Your task to perform on an android device: turn off picture-in-picture Image 0: 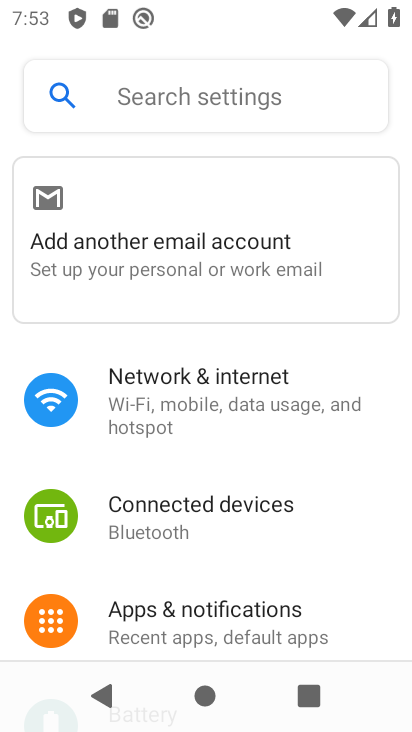
Step 0: drag from (181, 599) to (249, 324)
Your task to perform on an android device: turn off picture-in-picture Image 1: 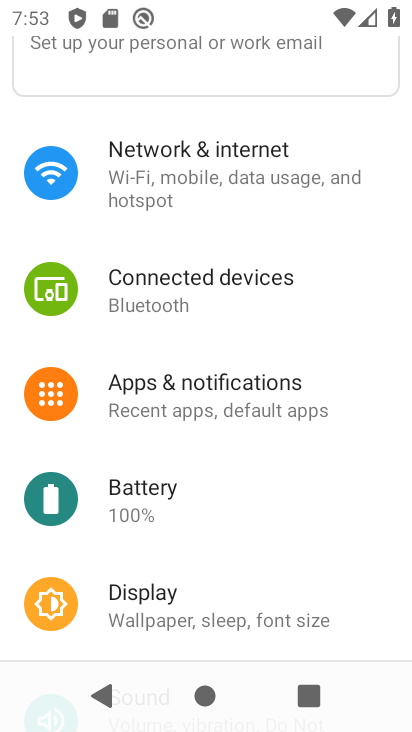
Step 1: press home button
Your task to perform on an android device: turn off picture-in-picture Image 2: 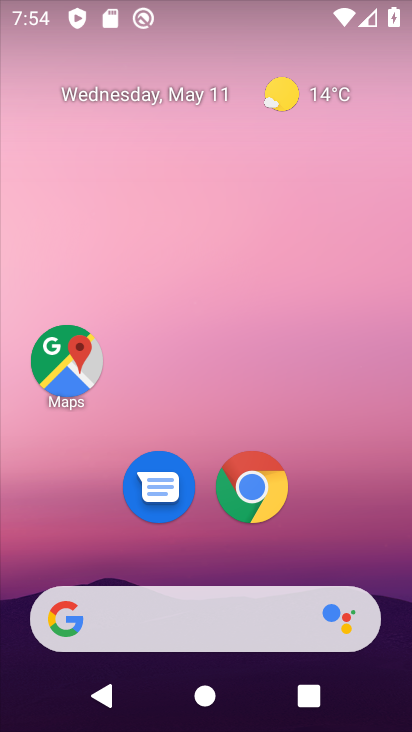
Step 2: click (258, 485)
Your task to perform on an android device: turn off picture-in-picture Image 3: 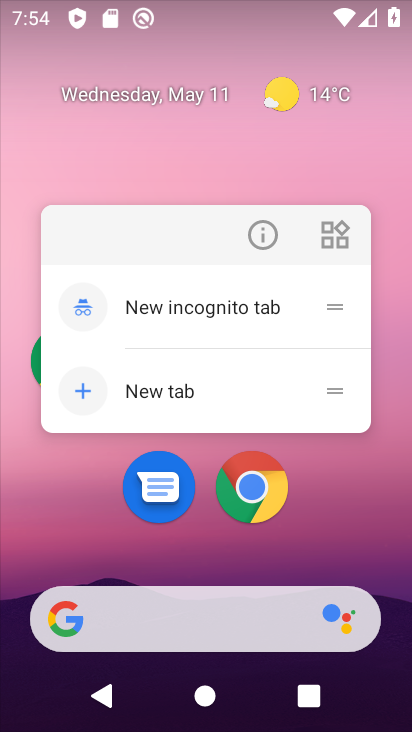
Step 3: click (262, 234)
Your task to perform on an android device: turn off picture-in-picture Image 4: 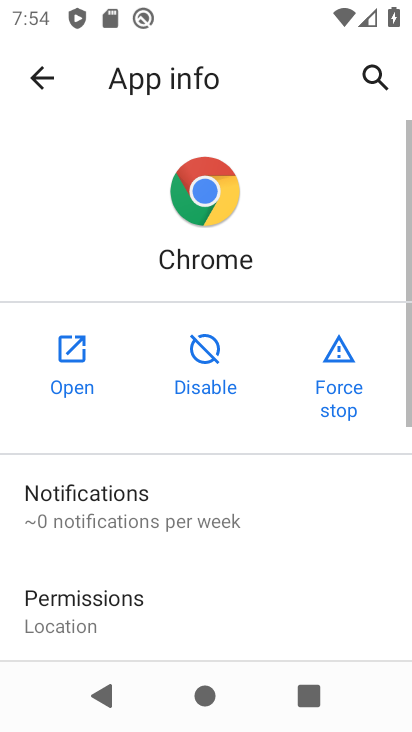
Step 4: drag from (203, 635) to (309, 299)
Your task to perform on an android device: turn off picture-in-picture Image 5: 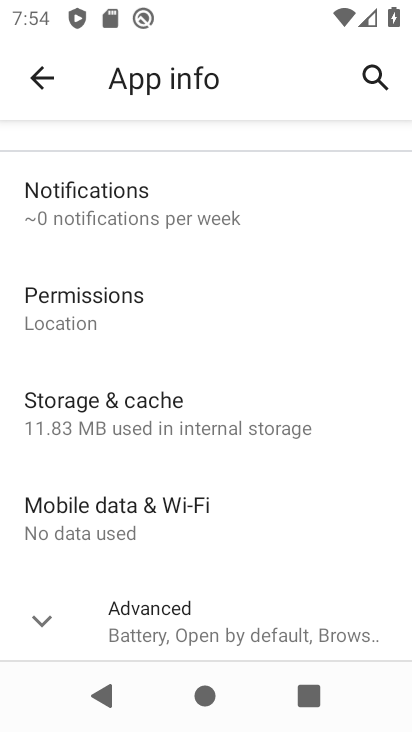
Step 5: click (161, 639)
Your task to perform on an android device: turn off picture-in-picture Image 6: 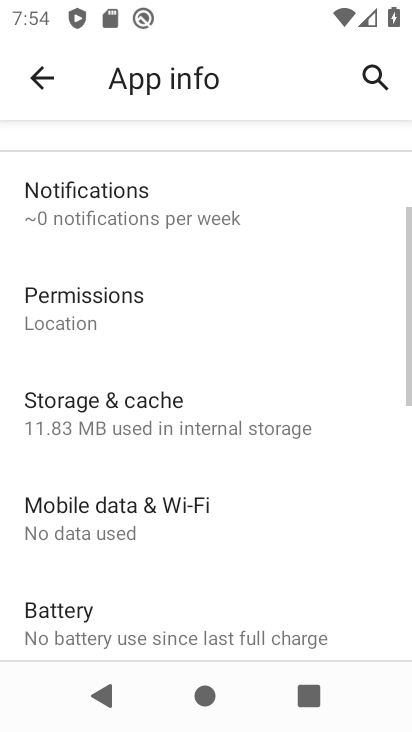
Step 6: task complete